Your task to perform on an android device: Search for pizza restaurants on Maps Image 0: 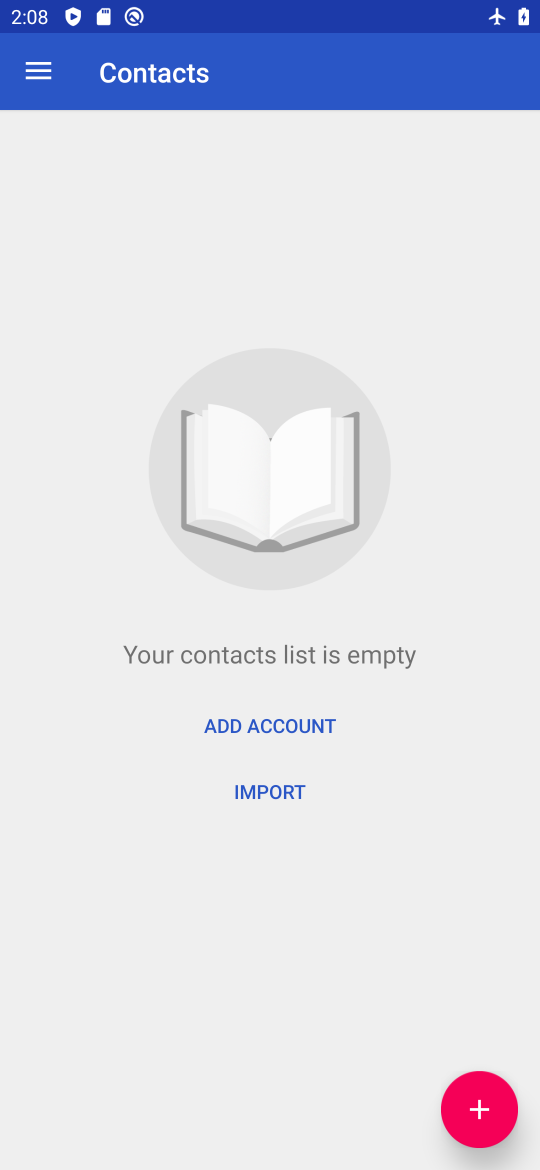
Step 0: press home button
Your task to perform on an android device: Search for pizza restaurants on Maps Image 1: 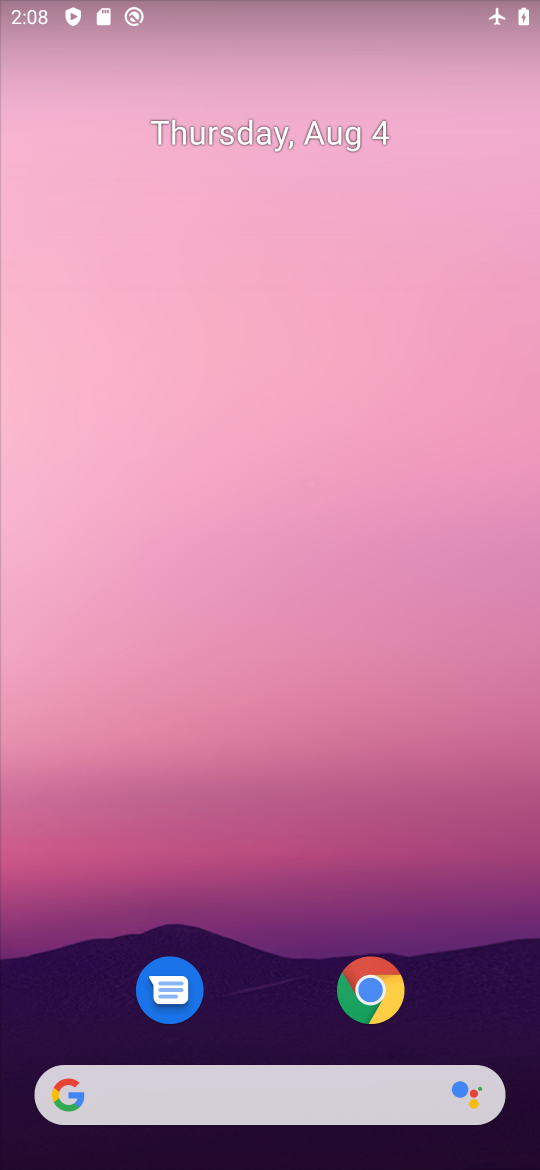
Step 1: drag from (294, 1036) to (409, 78)
Your task to perform on an android device: Search for pizza restaurants on Maps Image 2: 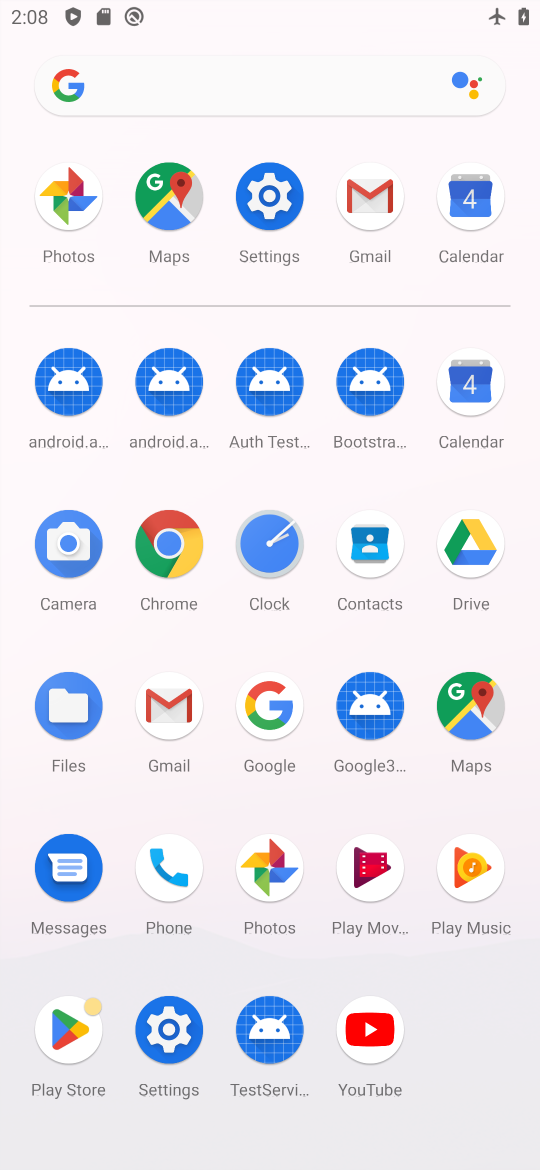
Step 2: click (160, 264)
Your task to perform on an android device: Search for pizza restaurants on Maps Image 3: 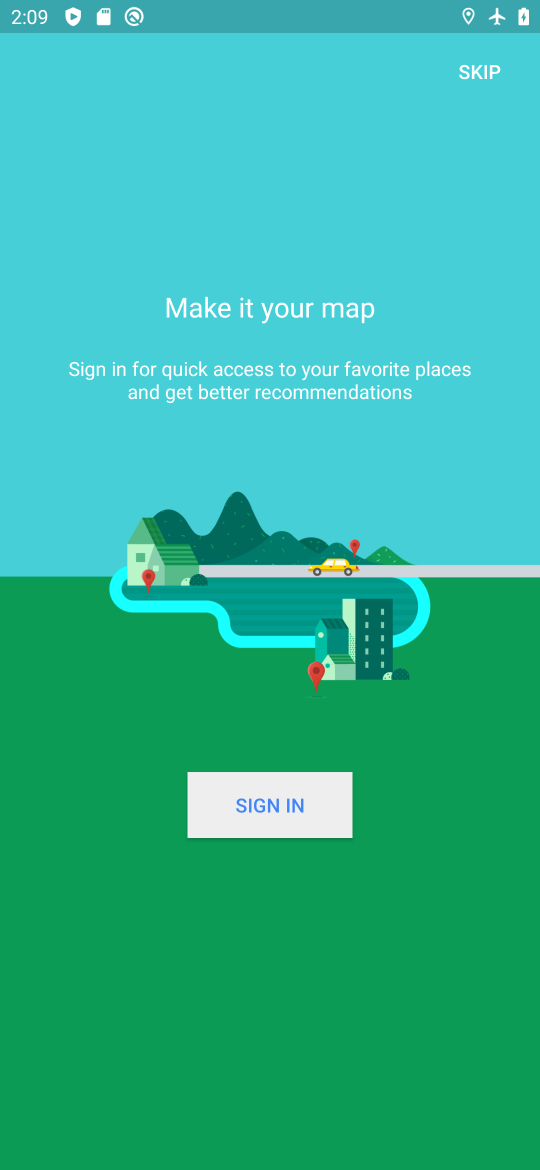
Step 3: task complete